Your task to perform on an android device: Open ESPN.com Image 0: 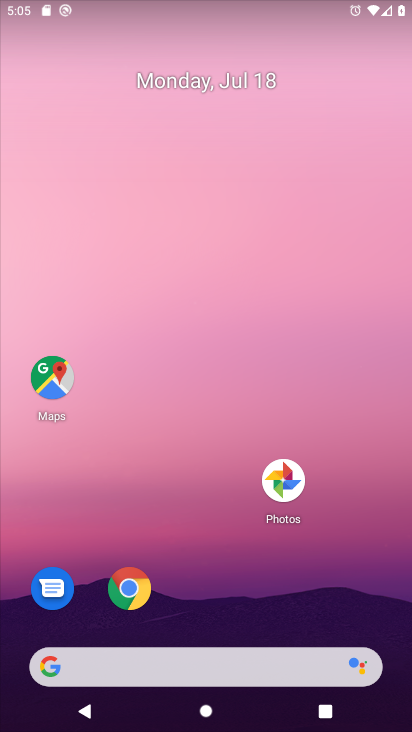
Step 0: click (139, 247)
Your task to perform on an android device: Open ESPN.com Image 1: 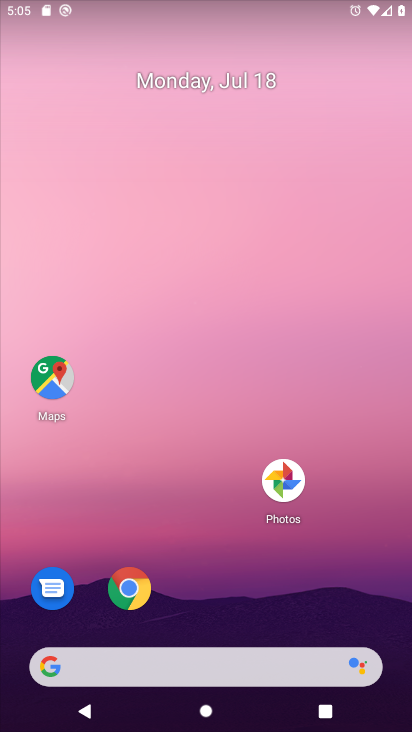
Step 1: drag from (248, 590) to (191, 211)
Your task to perform on an android device: Open ESPN.com Image 2: 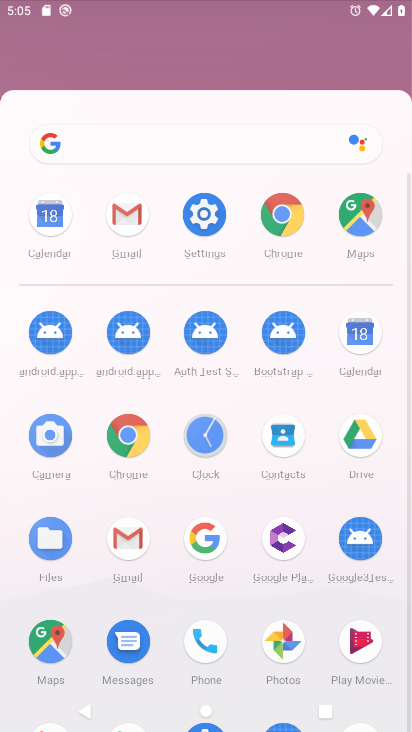
Step 2: drag from (226, 664) to (213, 371)
Your task to perform on an android device: Open ESPN.com Image 3: 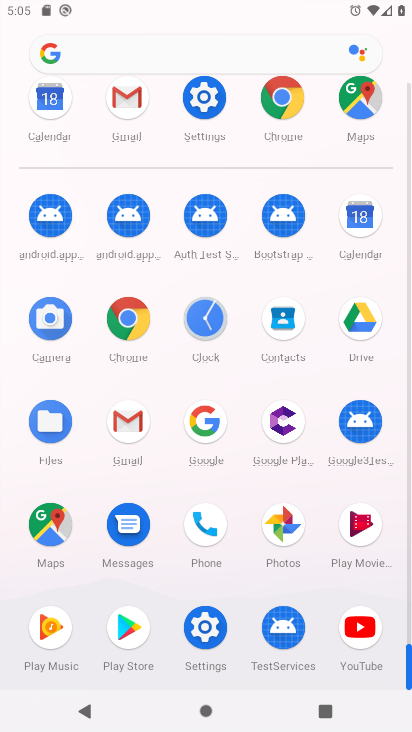
Step 3: click (124, 323)
Your task to perform on an android device: Open ESPN.com Image 4: 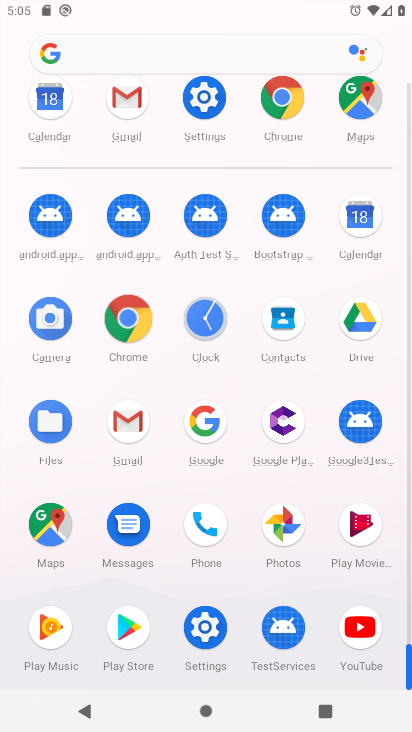
Step 4: click (125, 326)
Your task to perform on an android device: Open ESPN.com Image 5: 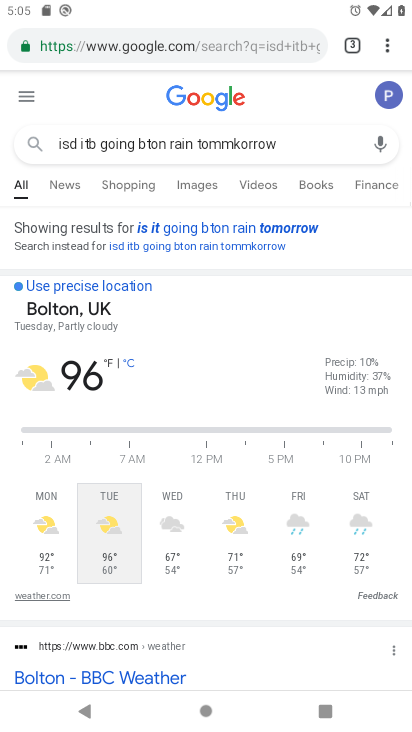
Step 5: drag from (383, 49) to (231, 143)
Your task to perform on an android device: Open ESPN.com Image 6: 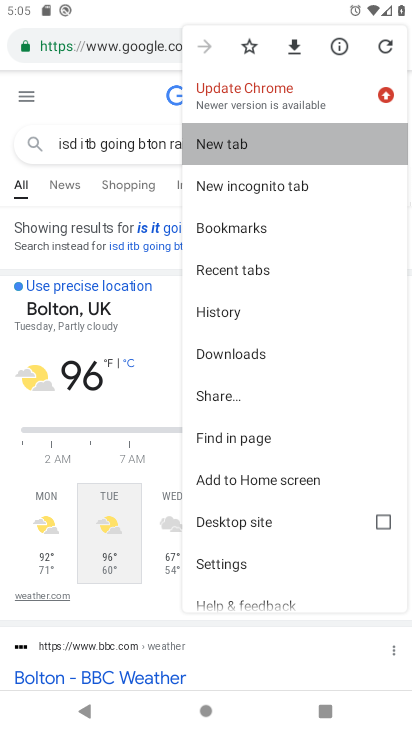
Step 6: click (231, 143)
Your task to perform on an android device: Open ESPN.com Image 7: 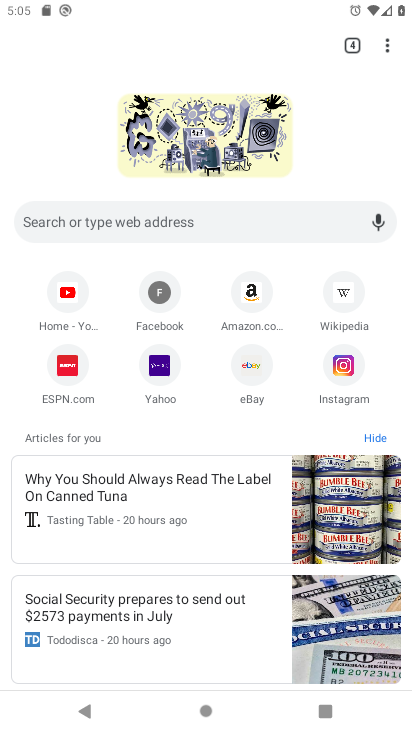
Step 7: click (75, 374)
Your task to perform on an android device: Open ESPN.com Image 8: 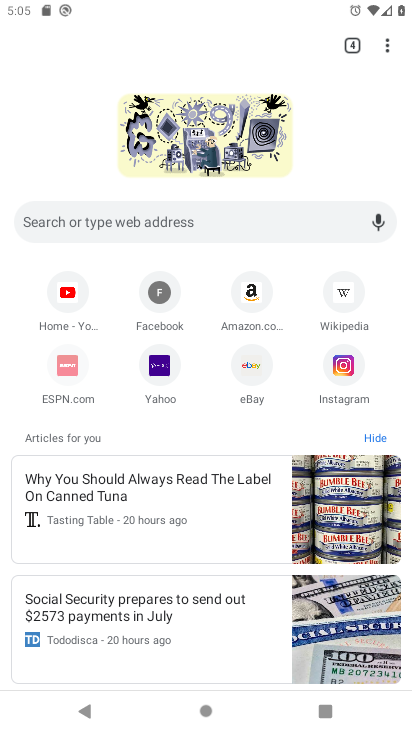
Step 8: click (82, 348)
Your task to perform on an android device: Open ESPN.com Image 9: 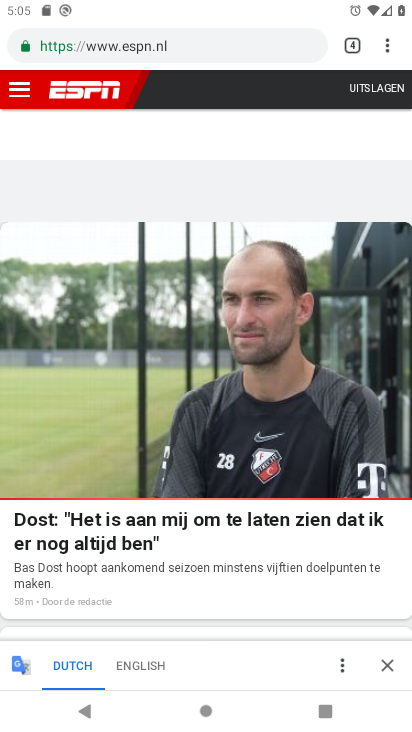
Step 9: task complete